Your task to perform on an android device: Search for pizza restaurants on Maps Image 0: 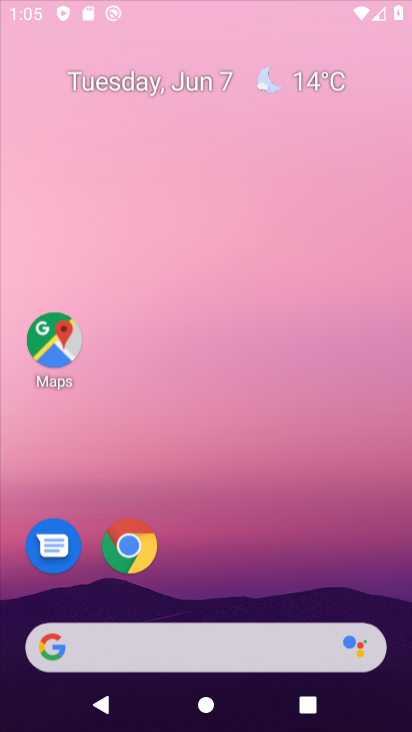
Step 0: click (352, 675)
Your task to perform on an android device: Search for pizza restaurants on Maps Image 1: 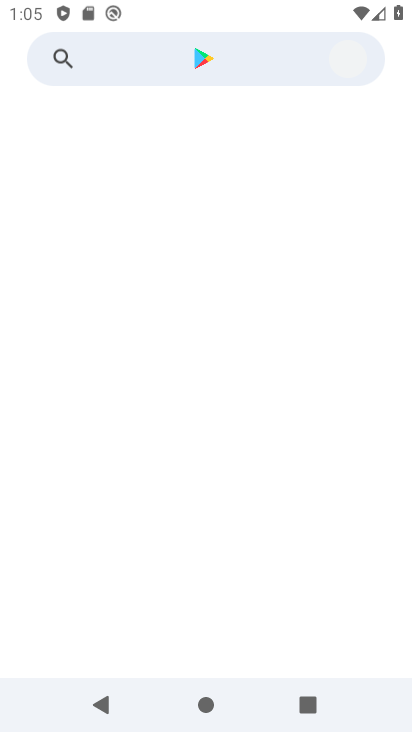
Step 1: press home button
Your task to perform on an android device: Search for pizza restaurants on Maps Image 2: 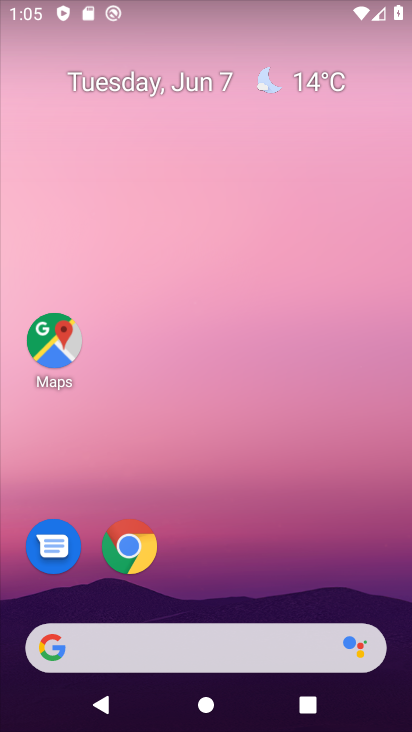
Step 2: click (74, 348)
Your task to perform on an android device: Search for pizza restaurants on Maps Image 3: 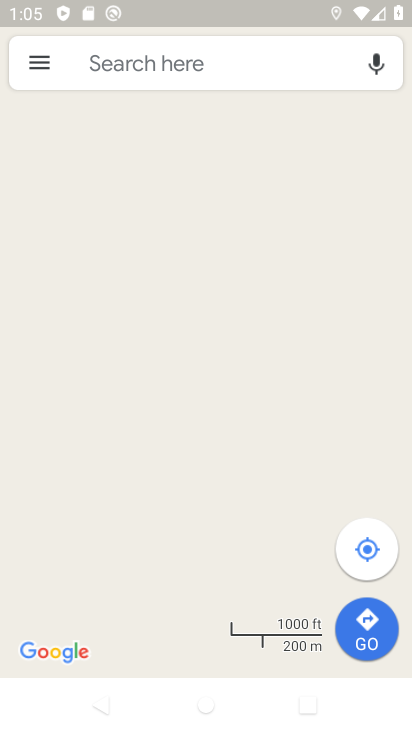
Step 3: click (187, 71)
Your task to perform on an android device: Search for pizza restaurants on Maps Image 4: 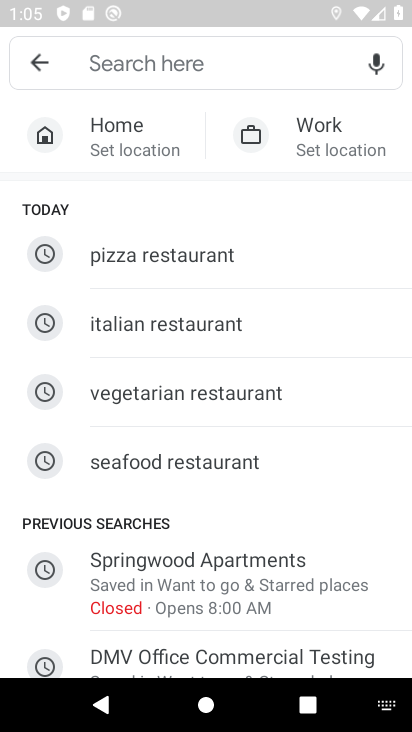
Step 4: click (179, 257)
Your task to perform on an android device: Search for pizza restaurants on Maps Image 5: 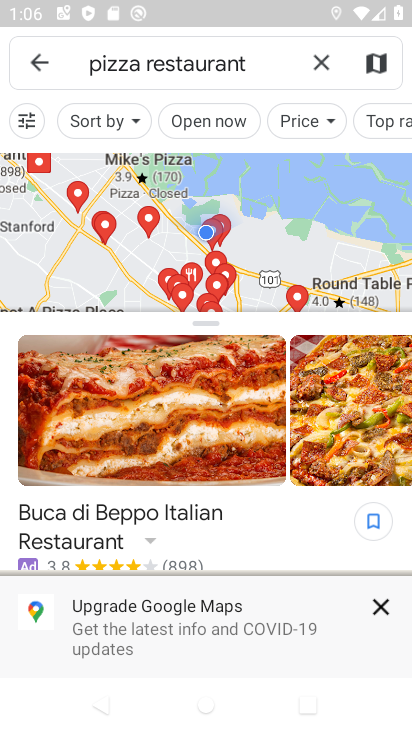
Step 5: task complete